Your task to perform on an android device: turn on priority inbox in the gmail app Image 0: 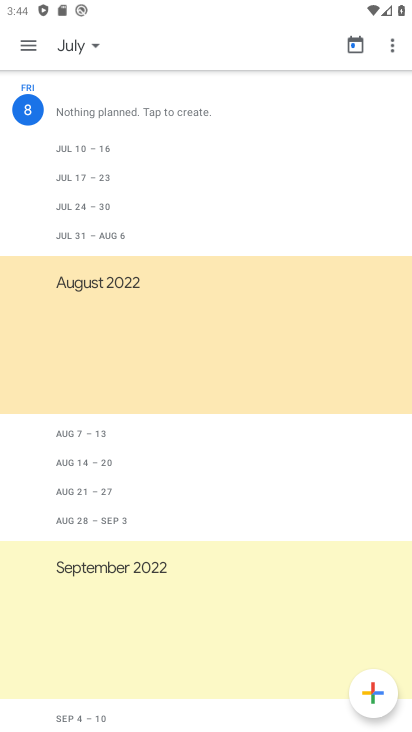
Step 0: press home button
Your task to perform on an android device: turn on priority inbox in the gmail app Image 1: 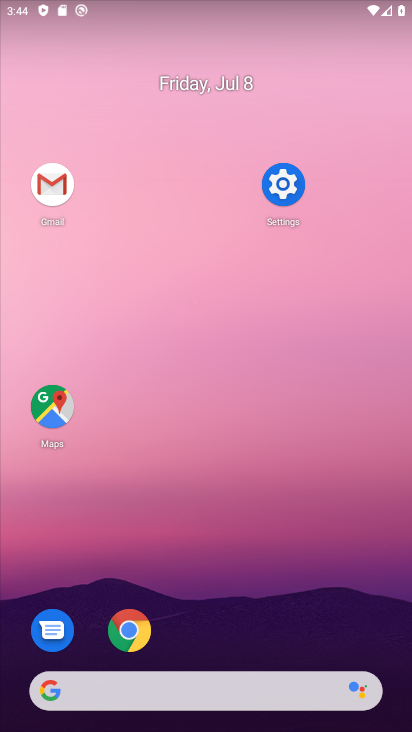
Step 1: click (57, 175)
Your task to perform on an android device: turn on priority inbox in the gmail app Image 2: 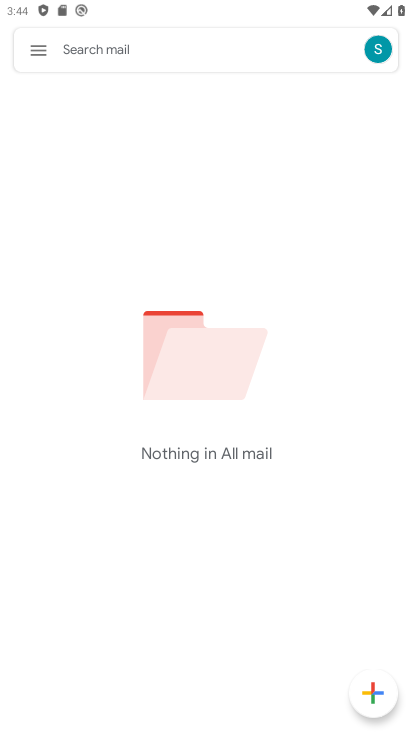
Step 2: click (40, 37)
Your task to perform on an android device: turn on priority inbox in the gmail app Image 3: 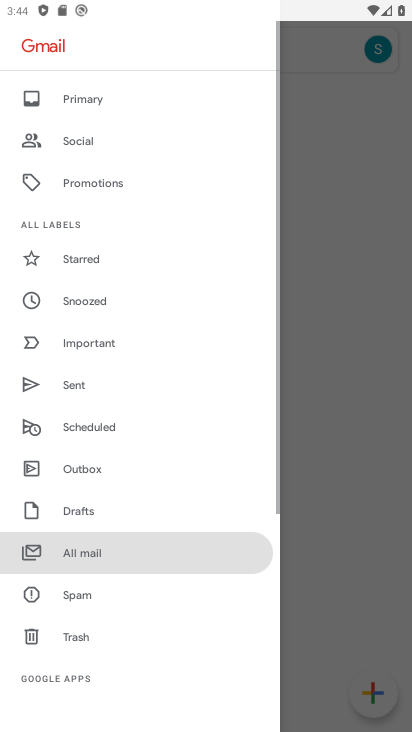
Step 3: drag from (88, 642) to (116, 227)
Your task to perform on an android device: turn on priority inbox in the gmail app Image 4: 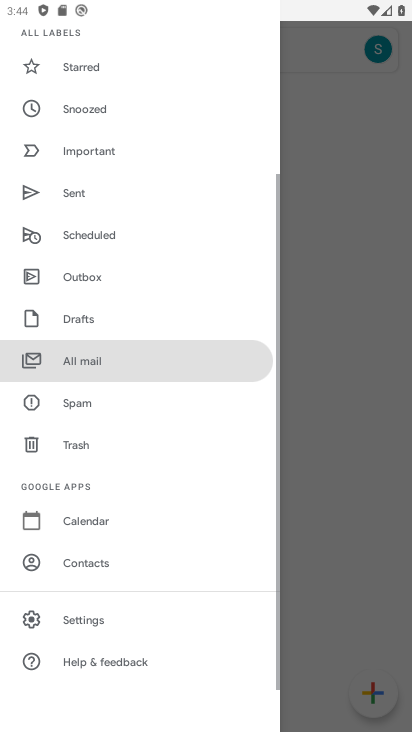
Step 4: click (79, 606)
Your task to perform on an android device: turn on priority inbox in the gmail app Image 5: 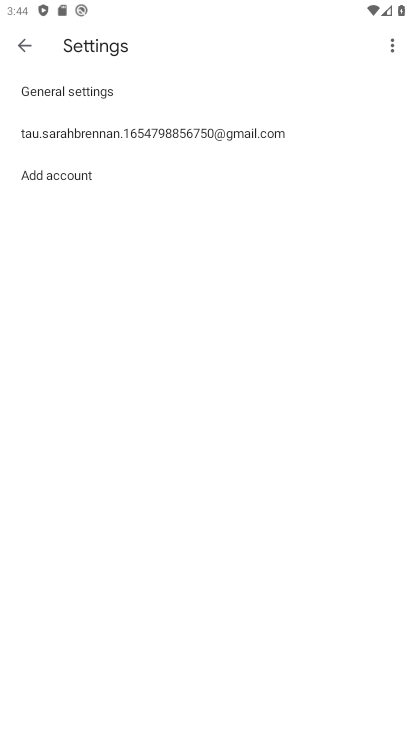
Step 5: click (124, 140)
Your task to perform on an android device: turn on priority inbox in the gmail app Image 6: 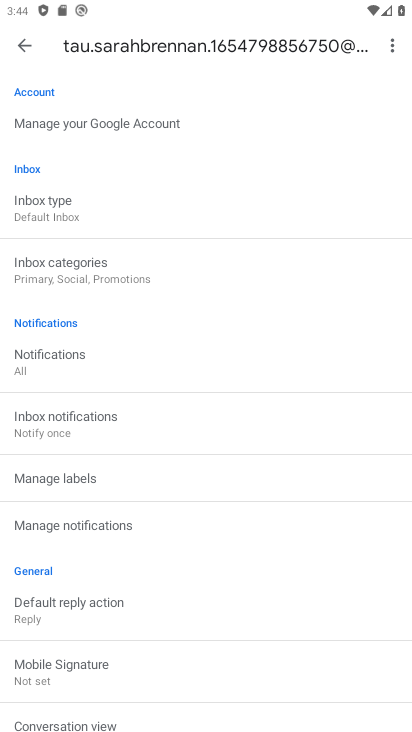
Step 6: click (128, 204)
Your task to perform on an android device: turn on priority inbox in the gmail app Image 7: 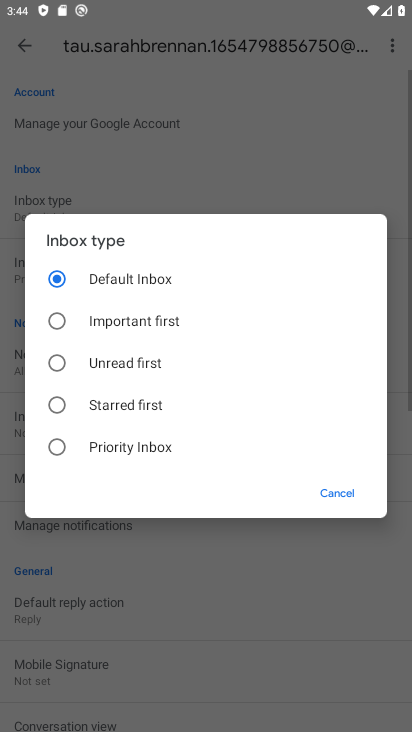
Step 7: click (115, 453)
Your task to perform on an android device: turn on priority inbox in the gmail app Image 8: 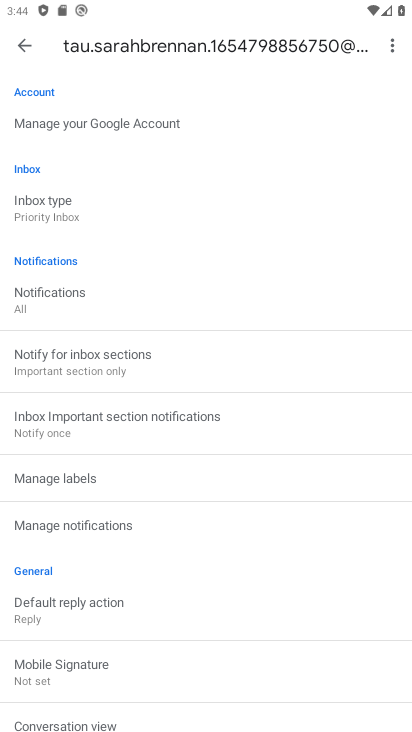
Step 8: task complete